Your task to perform on an android device: turn pop-ups on in chrome Image 0: 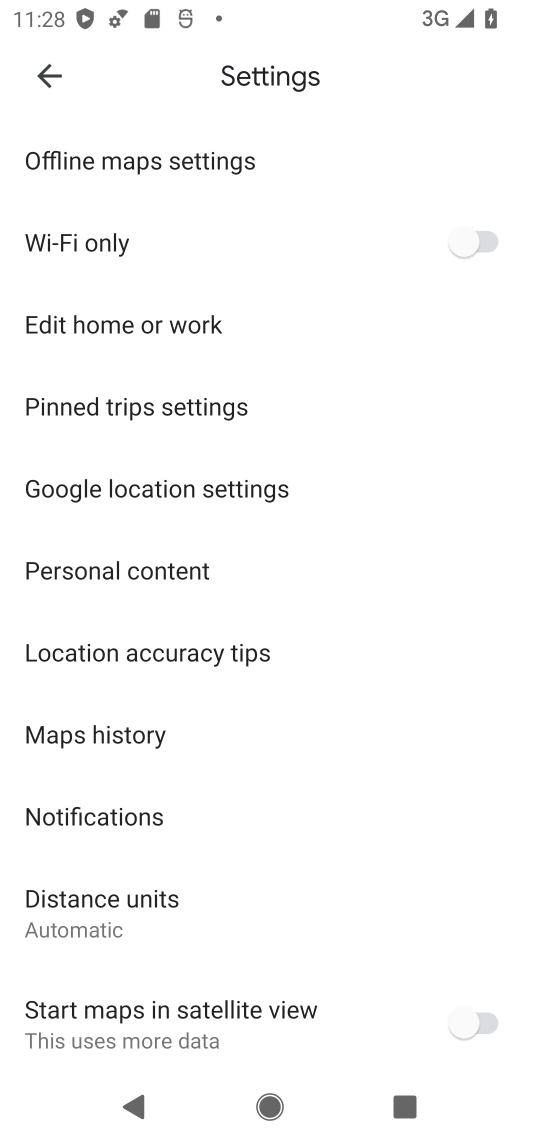
Step 0: press home button
Your task to perform on an android device: turn pop-ups on in chrome Image 1: 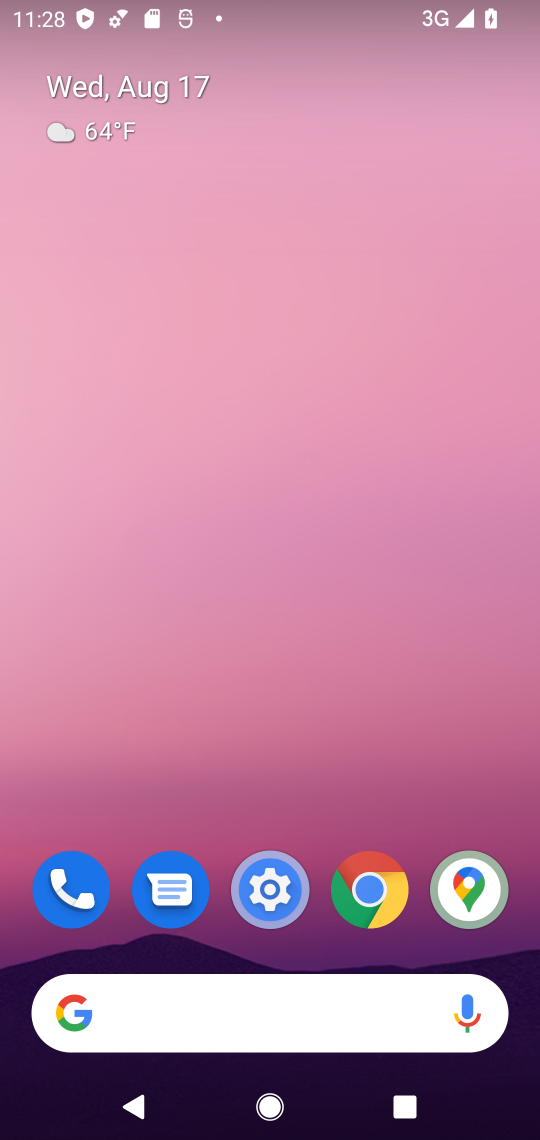
Step 1: click (364, 887)
Your task to perform on an android device: turn pop-ups on in chrome Image 2: 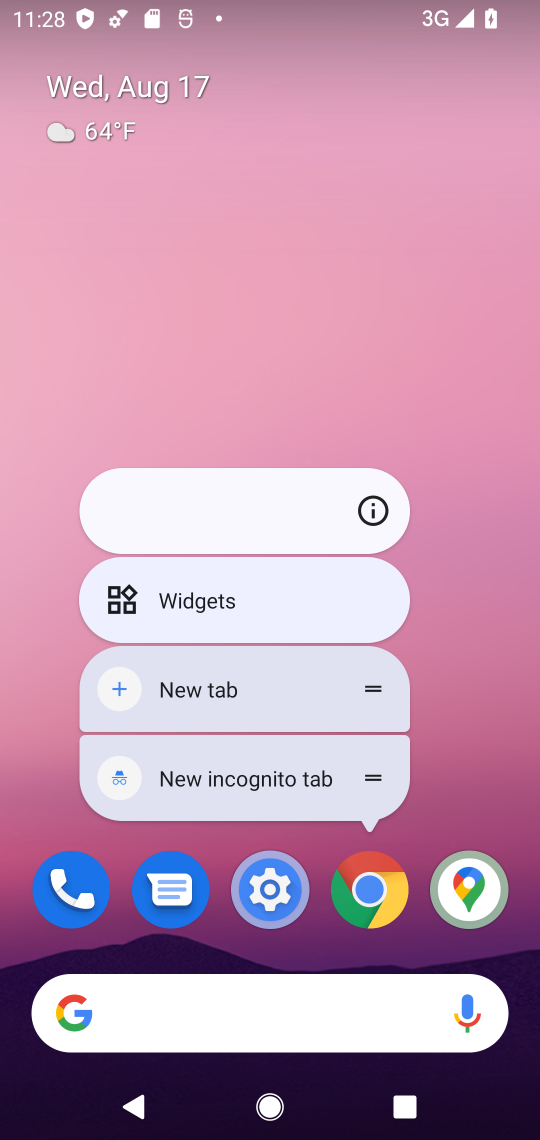
Step 2: click (364, 885)
Your task to perform on an android device: turn pop-ups on in chrome Image 3: 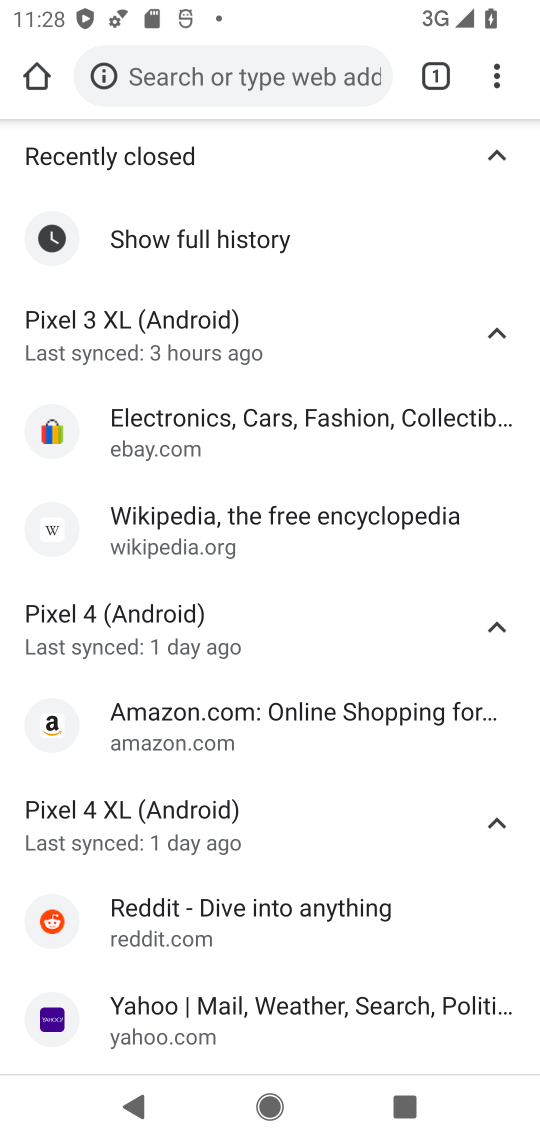
Step 3: click (498, 83)
Your task to perform on an android device: turn pop-ups on in chrome Image 4: 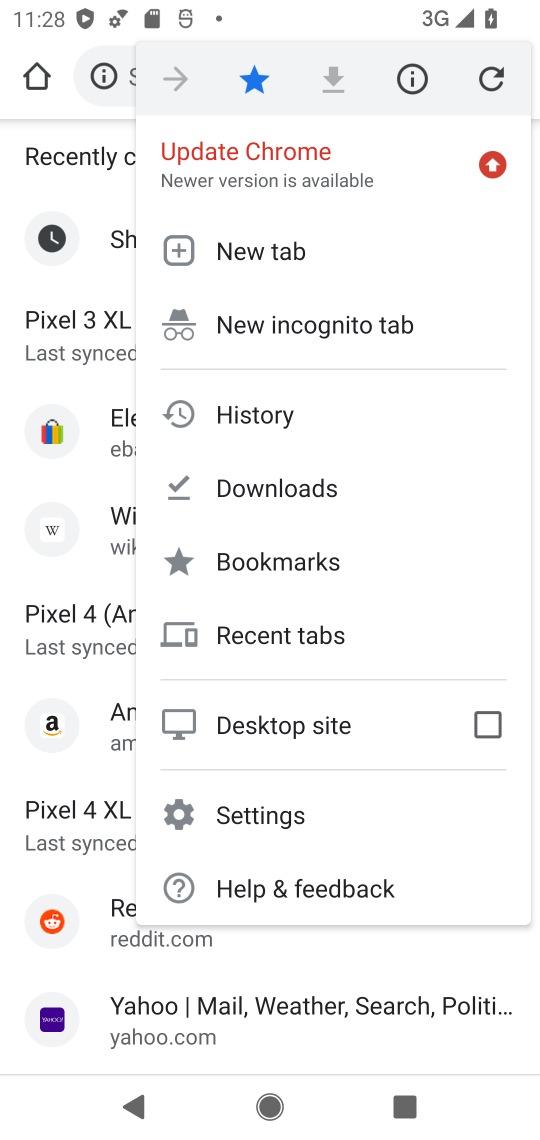
Step 4: click (275, 806)
Your task to perform on an android device: turn pop-ups on in chrome Image 5: 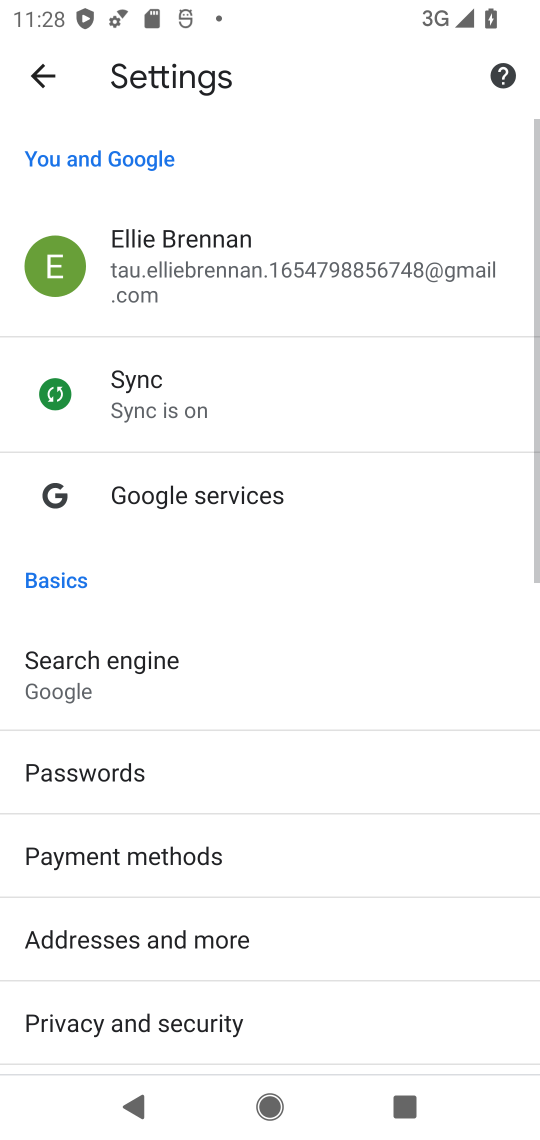
Step 5: drag from (281, 805) to (339, 0)
Your task to perform on an android device: turn pop-ups on in chrome Image 6: 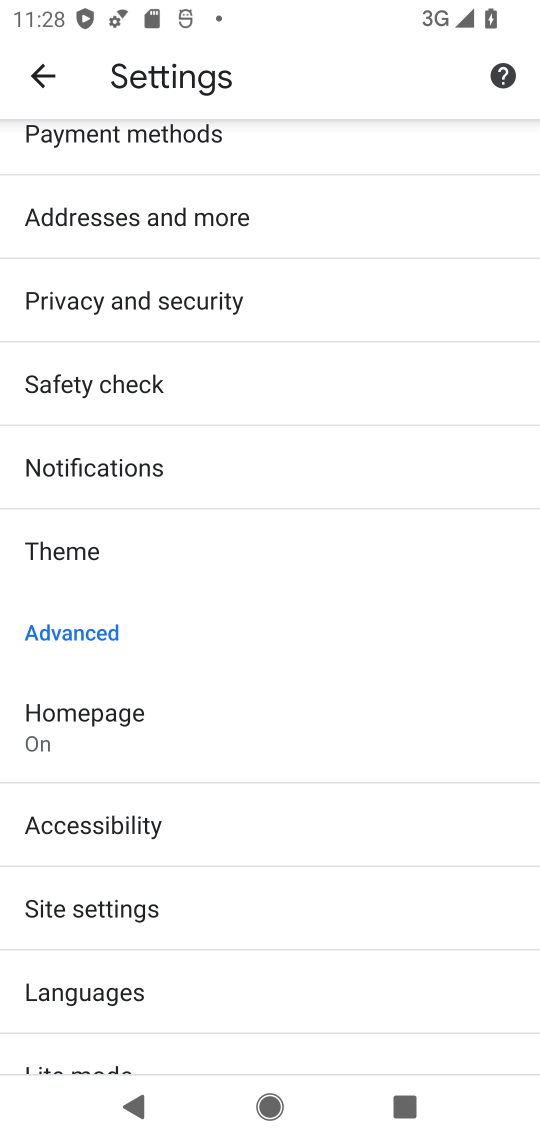
Step 6: click (234, 895)
Your task to perform on an android device: turn pop-ups on in chrome Image 7: 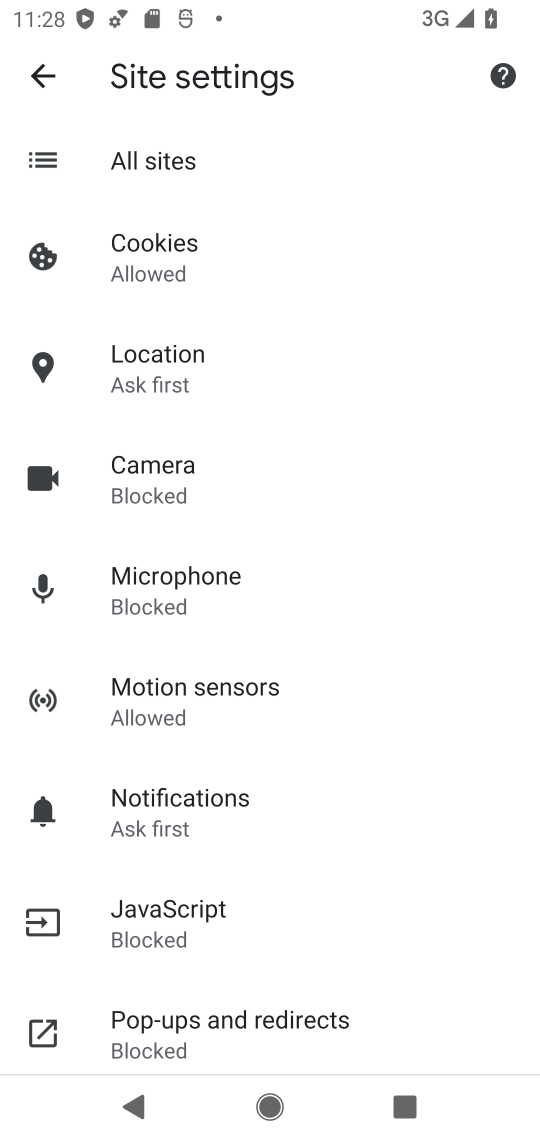
Step 7: click (270, 1014)
Your task to perform on an android device: turn pop-ups on in chrome Image 8: 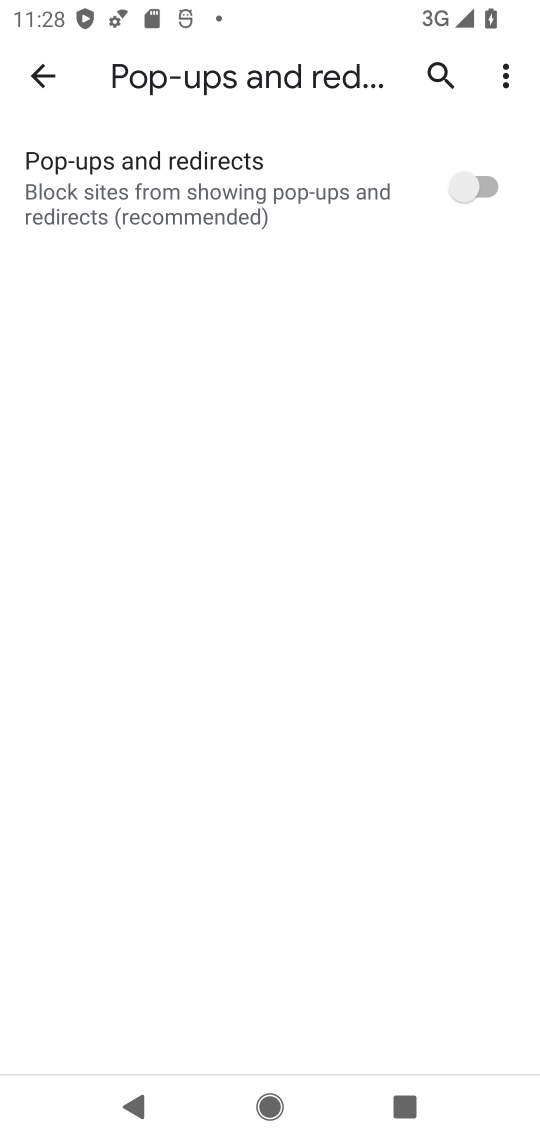
Step 8: click (479, 178)
Your task to perform on an android device: turn pop-ups on in chrome Image 9: 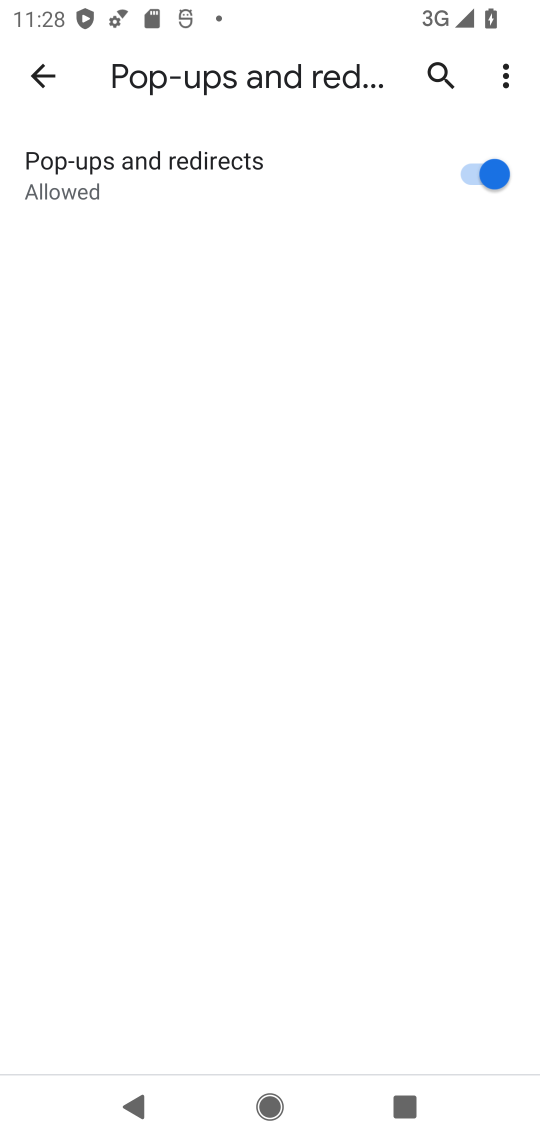
Step 9: task complete